Your task to perform on an android device: check battery use Image 0: 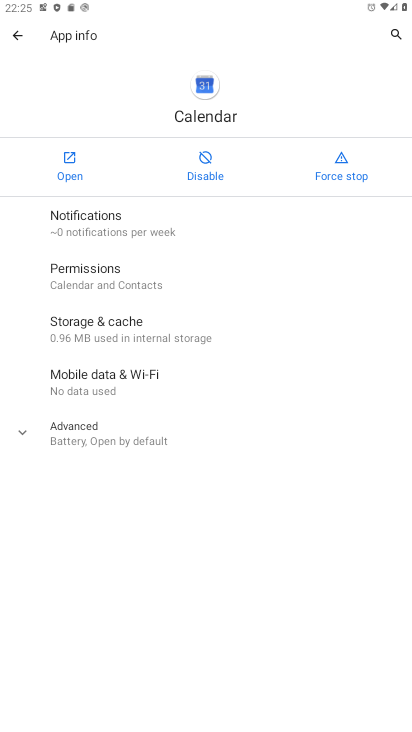
Step 0: drag from (203, 688) to (247, 295)
Your task to perform on an android device: check battery use Image 1: 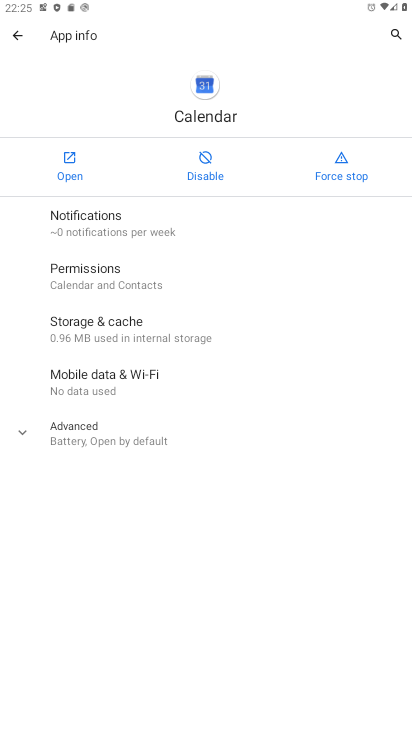
Step 1: press home button
Your task to perform on an android device: check battery use Image 2: 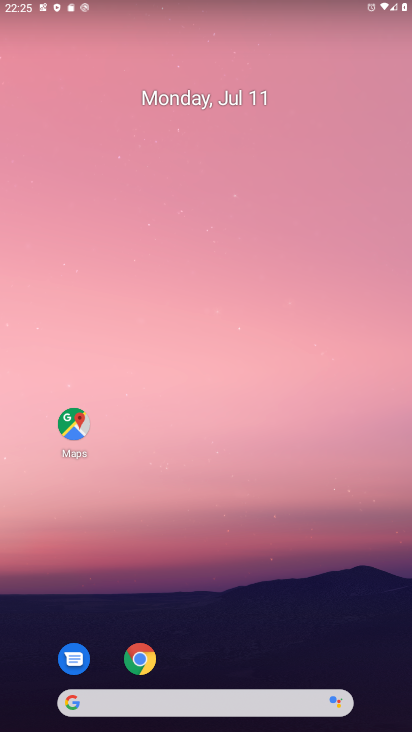
Step 2: drag from (174, 682) to (172, 206)
Your task to perform on an android device: check battery use Image 3: 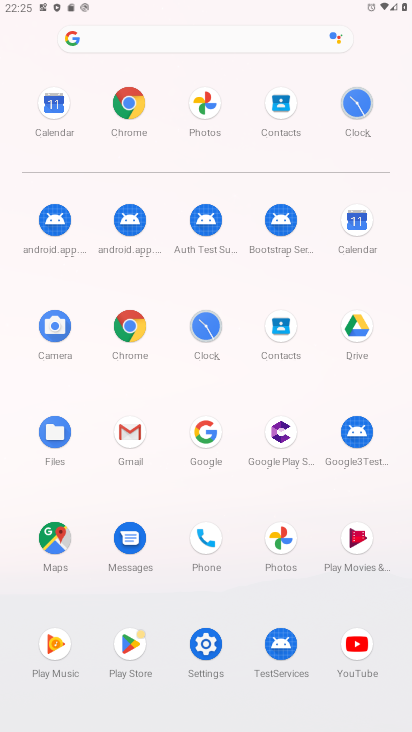
Step 3: click (205, 642)
Your task to perform on an android device: check battery use Image 4: 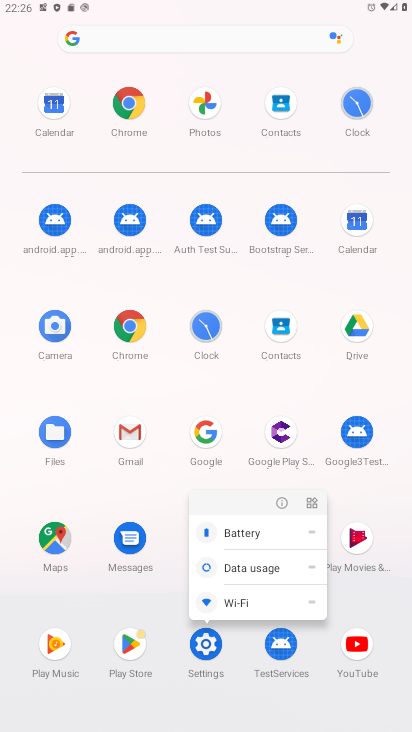
Step 4: click (282, 500)
Your task to perform on an android device: check battery use Image 5: 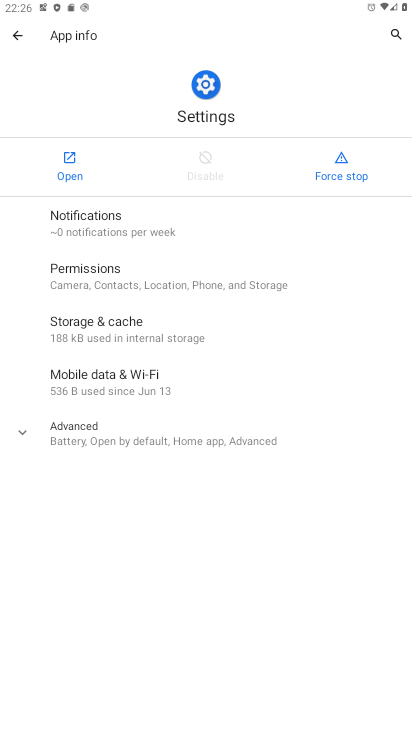
Step 5: click (66, 159)
Your task to perform on an android device: check battery use Image 6: 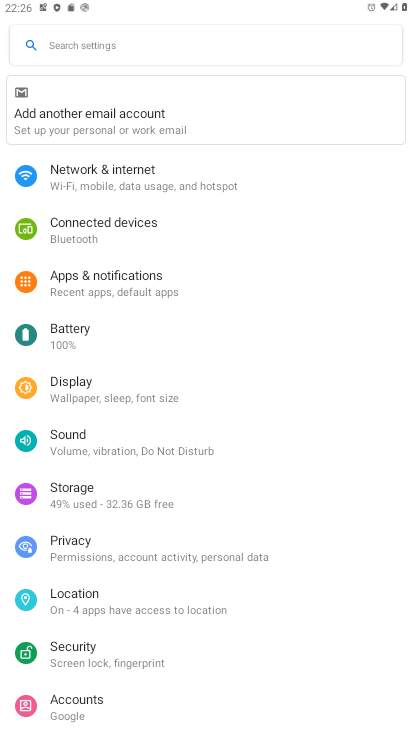
Step 6: click (93, 338)
Your task to perform on an android device: check battery use Image 7: 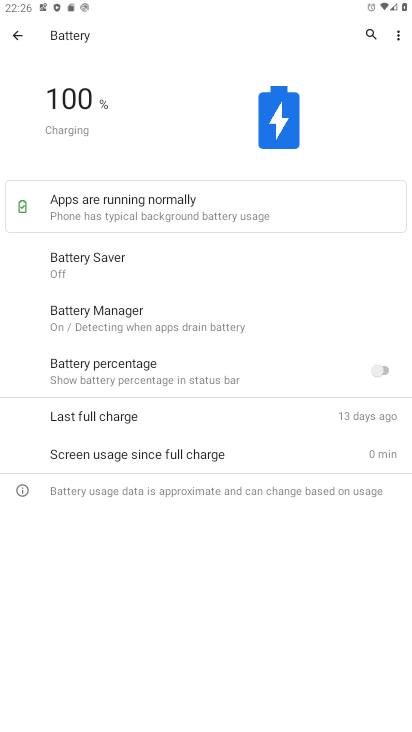
Step 7: drag from (271, 556) to (286, 166)
Your task to perform on an android device: check battery use Image 8: 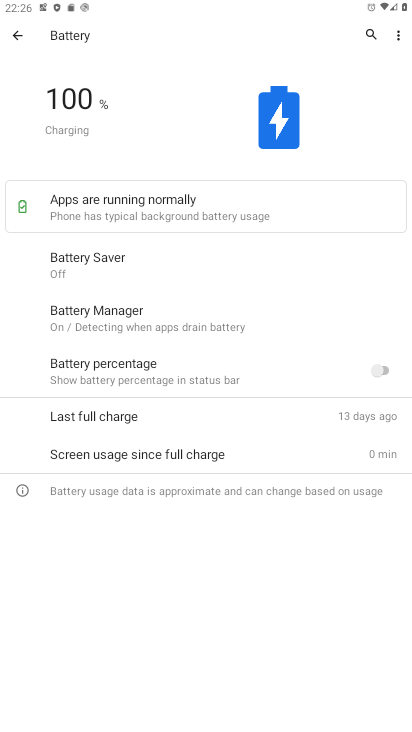
Step 8: click (402, 31)
Your task to perform on an android device: check battery use Image 9: 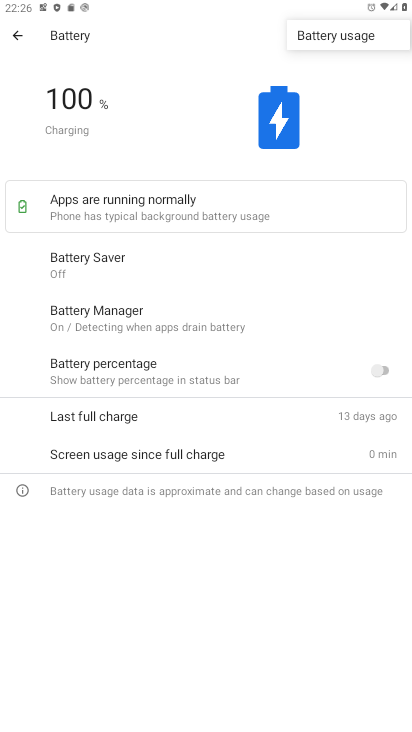
Step 9: click (344, 42)
Your task to perform on an android device: check battery use Image 10: 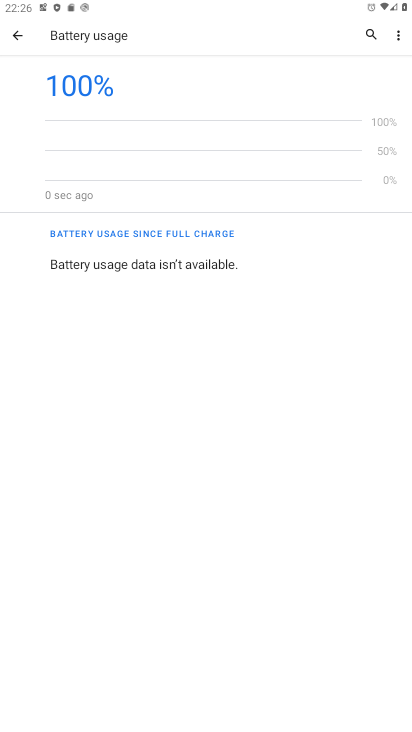
Step 10: task complete